Your task to perform on an android device: Open Chrome and go to the settings page Image 0: 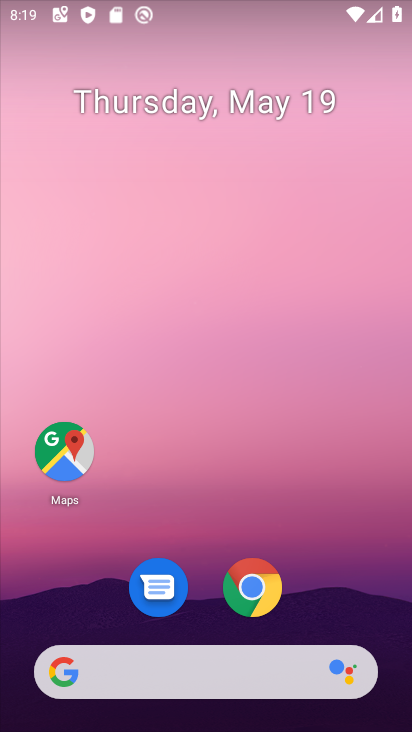
Step 0: drag from (318, 557) to (273, 29)
Your task to perform on an android device: Open Chrome and go to the settings page Image 1: 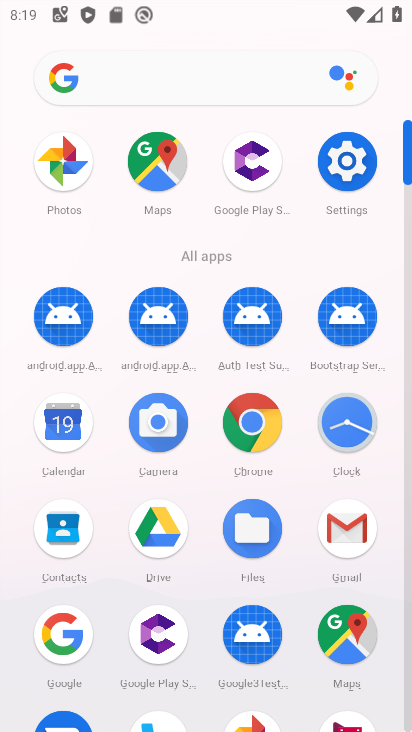
Step 1: drag from (17, 574) to (35, 287)
Your task to perform on an android device: Open Chrome and go to the settings page Image 2: 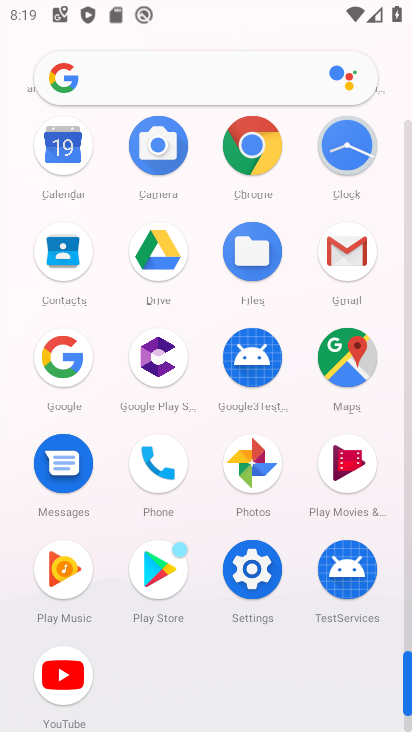
Step 2: click (254, 568)
Your task to perform on an android device: Open Chrome and go to the settings page Image 3: 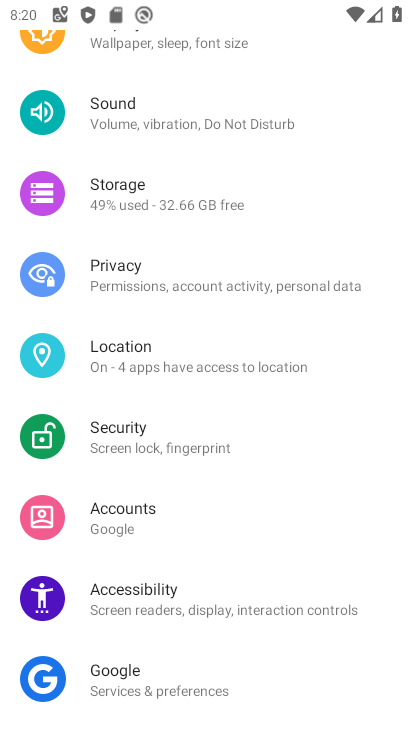
Step 3: press back button
Your task to perform on an android device: Open Chrome and go to the settings page Image 4: 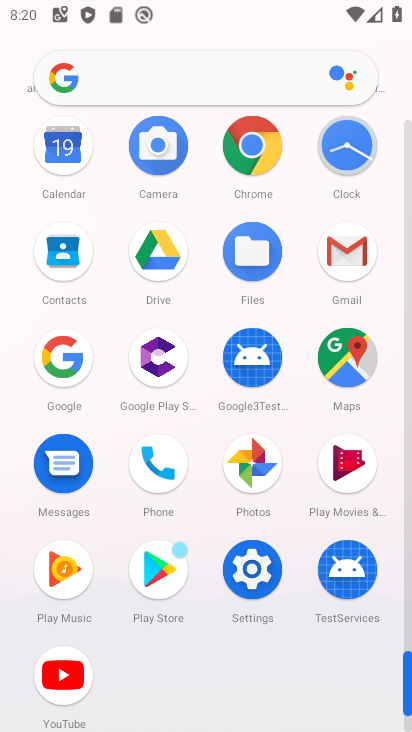
Step 4: click (254, 138)
Your task to perform on an android device: Open Chrome and go to the settings page Image 5: 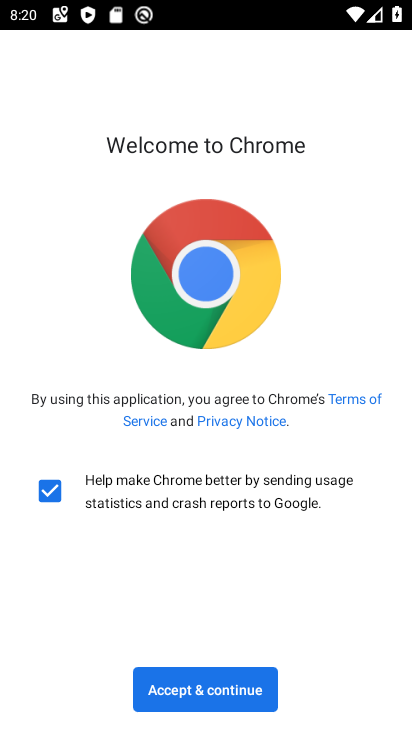
Step 5: click (206, 698)
Your task to perform on an android device: Open Chrome and go to the settings page Image 6: 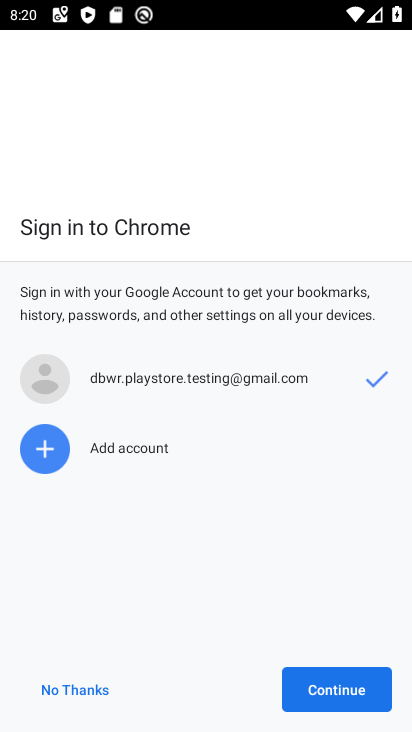
Step 6: click (314, 693)
Your task to perform on an android device: Open Chrome and go to the settings page Image 7: 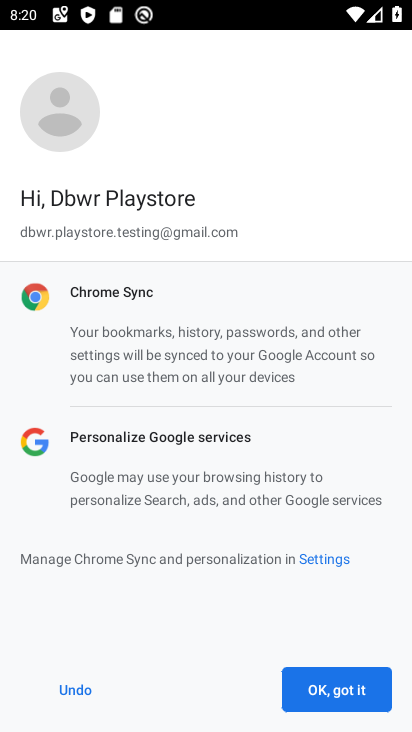
Step 7: click (315, 692)
Your task to perform on an android device: Open Chrome and go to the settings page Image 8: 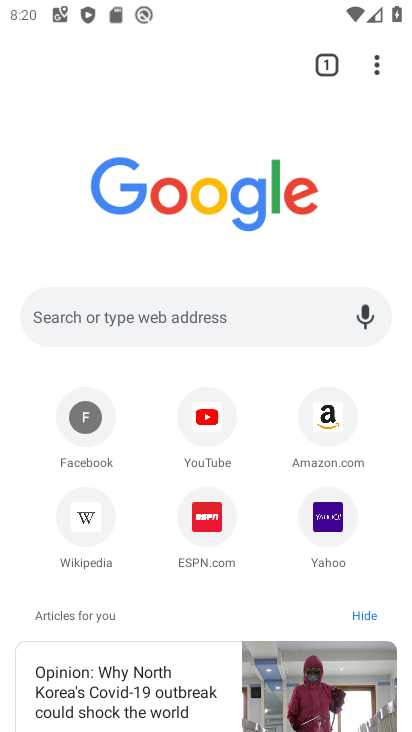
Step 8: task complete